Your task to perform on an android device: Find coffee shops on Maps Image 0: 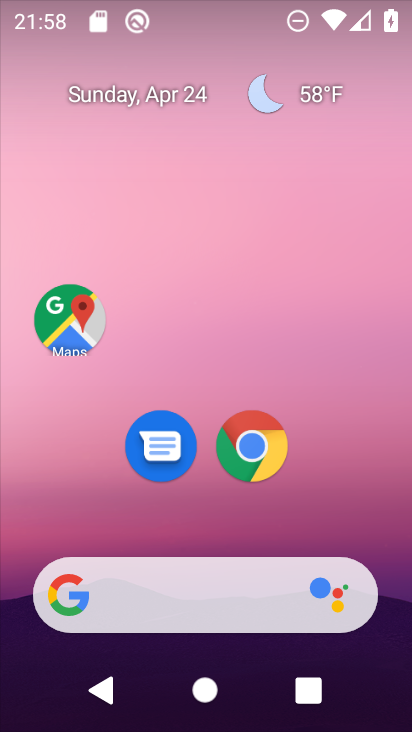
Step 0: drag from (172, 607) to (312, 204)
Your task to perform on an android device: Find coffee shops on Maps Image 1: 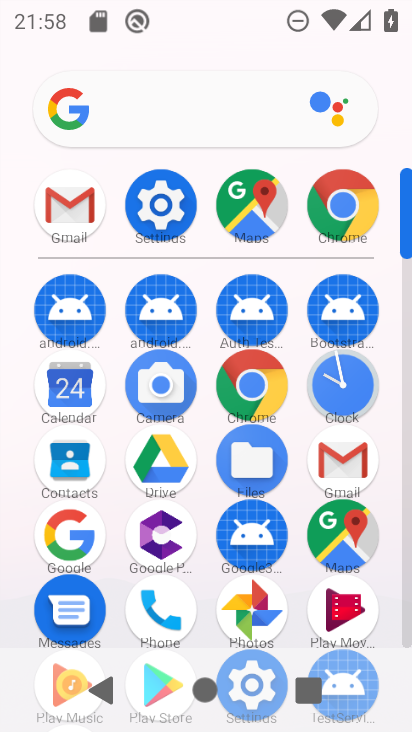
Step 1: click (254, 218)
Your task to perform on an android device: Find coffee shops on Maps Image 2: 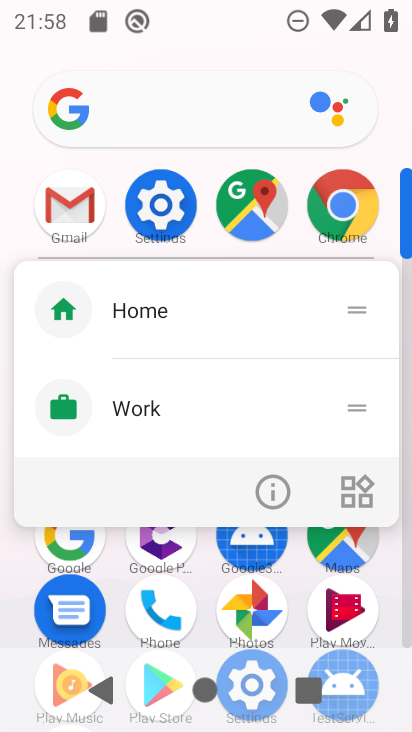
Step 2: click (249, 219)
Your task to perform on an android device: Find coffee shops on Maps Image 3: 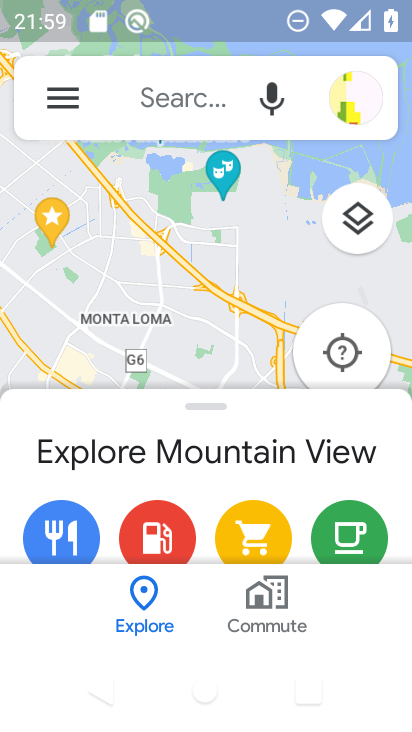
Step 3: click (168, 109)
Your task to perform on an android device: Find coffee shops on Maps Image 4: 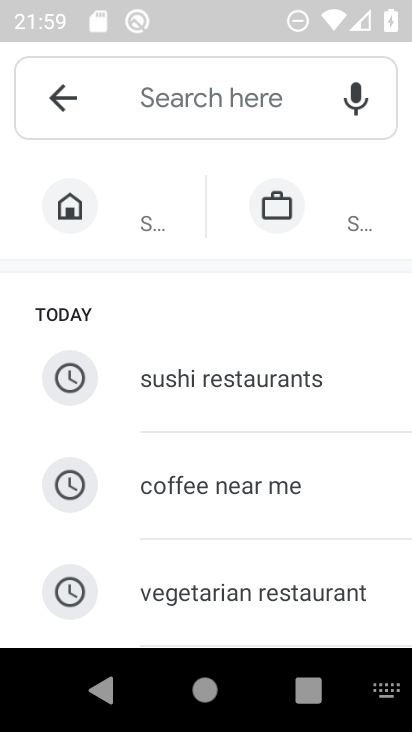
Step 4: click (216, 486)
Your task to perform on an android device: Find coffee shops on Maps Image 5: 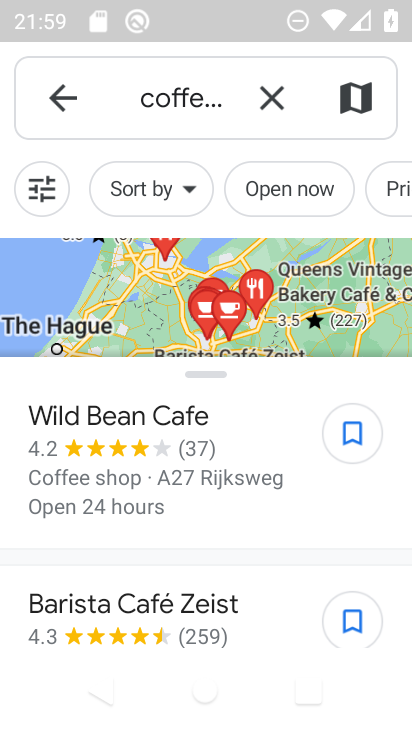
Step 5: task complete